Your task to perform on an android device: refresh tabs in the chrome app Image 0: 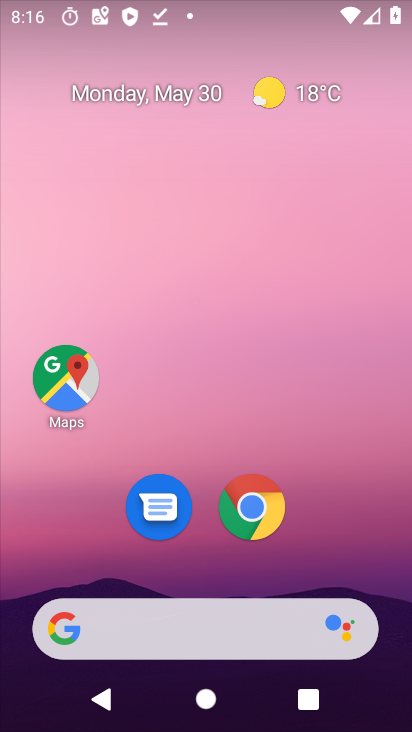
Step 0: drag from (373, 518) to (301, 118)
Your task to perform on an android device: refresh tabs in the chrome app Image 1: 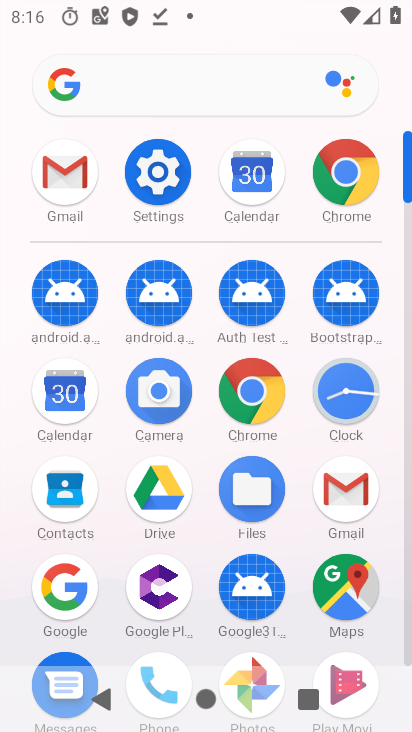
Step 1: click (224, 427)
Your task to perform on an android device: refresh tabs in the chrome app Image 2: 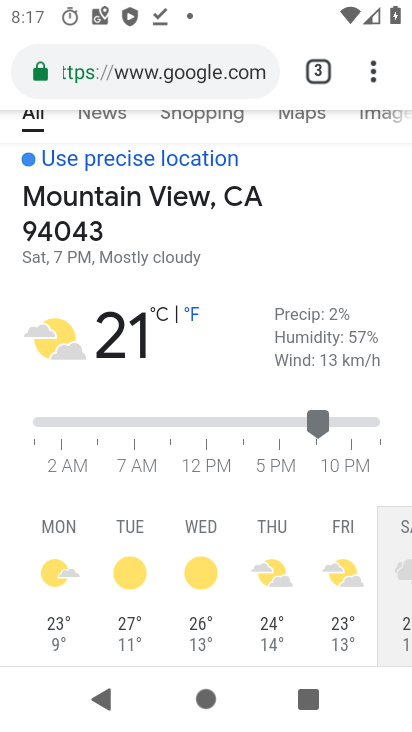
Step 2: task complete